Your task to perform on an android device: Open settings on Google Maps Image 0: 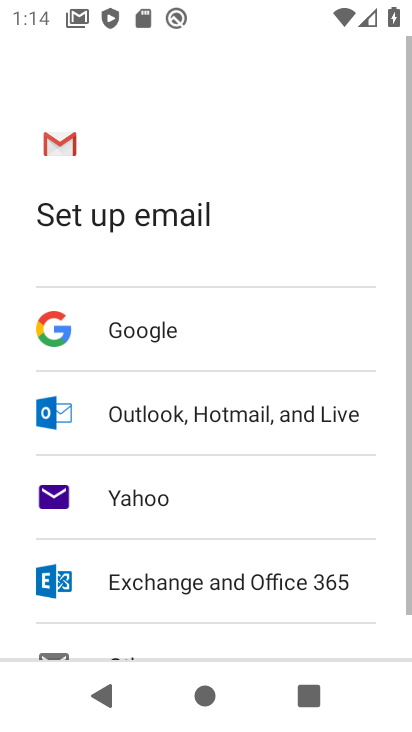
Step 0: press home button
Your task to perform on an android device: Open settings on Google Maps Image 1: 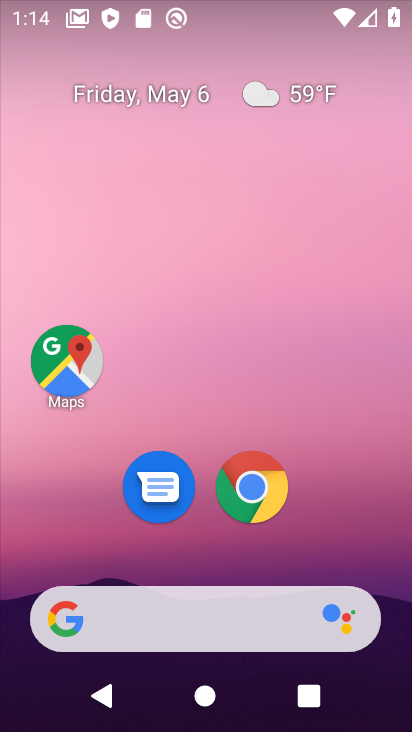
Step 1: click (57, 352)
Your task to perform on an android device: Open settings on Google Maps Image 2: 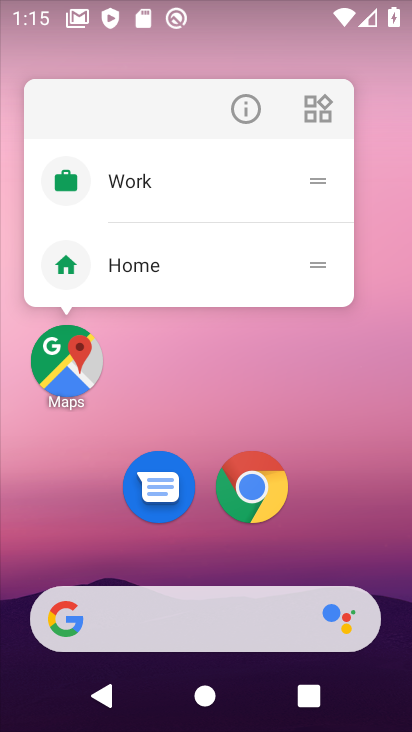
Step 2: click (57, 352)
Your task to perform on an android device: Open settings on Google Maps Image 3: 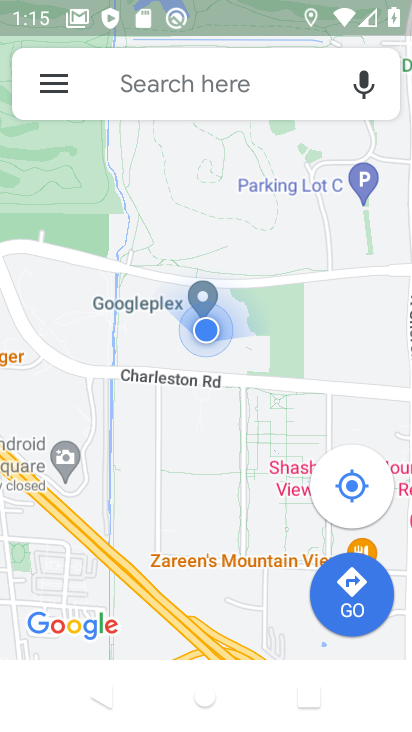
Step 3: click (41, 87)
Your task to perform on an android device: Open settings on Google Maps Image 4: 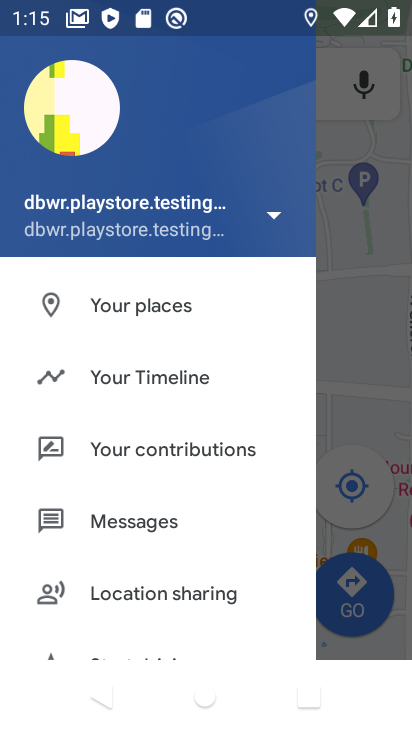
Step 4: drag from (145, 504) to (189, 71)
Your task to perform on an android device: Open settings on Google Maps Image 5: 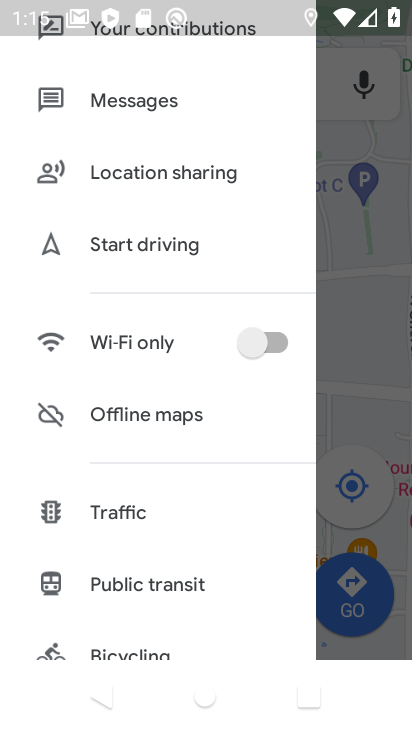
Step 5: drag from (170, 491) to (145, 137)
Your task to perform on an android device: Open settings on Google Maps Image 6: 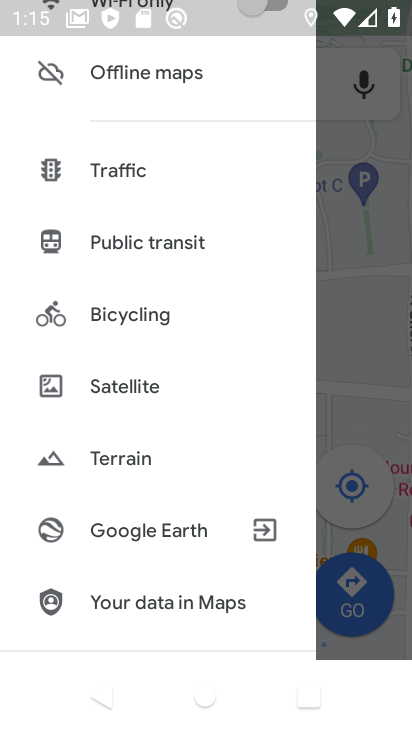
Step 6: drag from (89, 478) to (148, 103)
Your task to perform on an android device: Open settings on Google Maps Image 7: 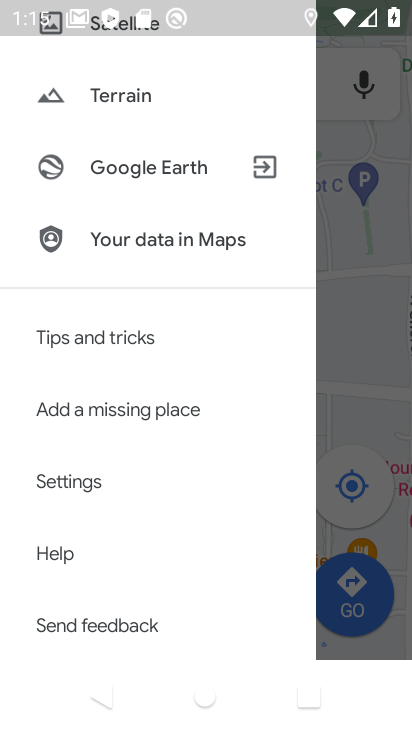
Step 7: click (117, 472)
Your task to perform on an android device: Open settings on Google Maps Image 8: 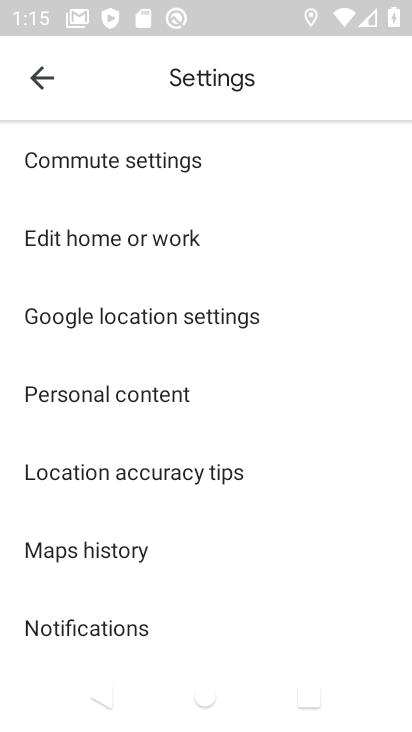
Step 8: task complete